Your task to perform on an android device: Search for pizza restaurants on Maps Image 0: 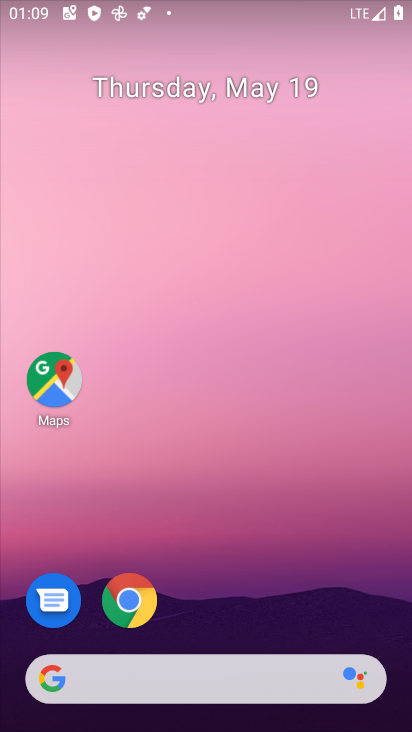
Step 0: click (49, 377)
Your task to perform on an android device: Search for pizza restaurants on Maps Image 1: 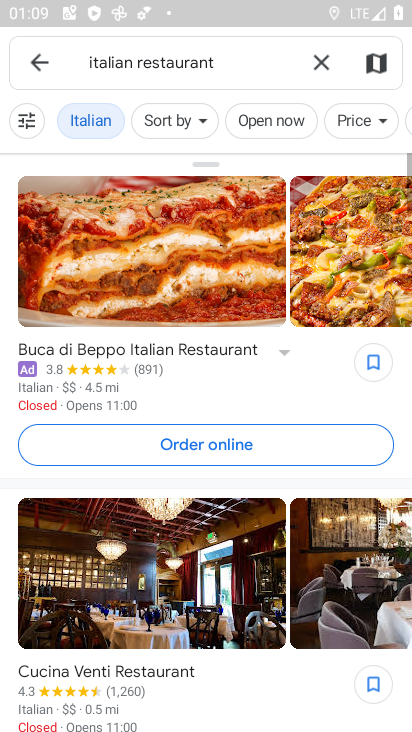
Step 1: click (322, 58)
Your task to perform on an android device: Search for pizza restaurants on Maps Image 2: 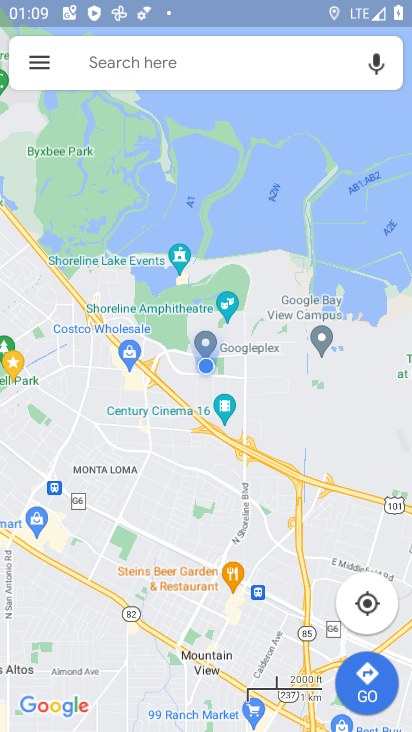
Step 2: click (172, 62)
Your task to perform on an android device: Search for pizza restaurants on Maps Image 3: 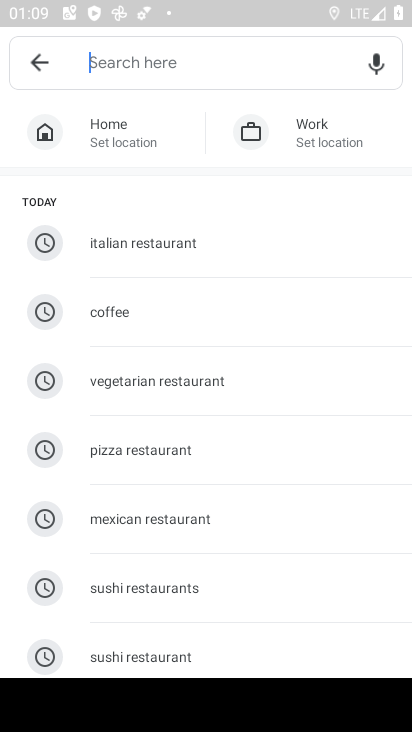
Step 3: click (148, 438)
Your task to perform on an android device: Search for pizza restaurants on Maps Image 4: 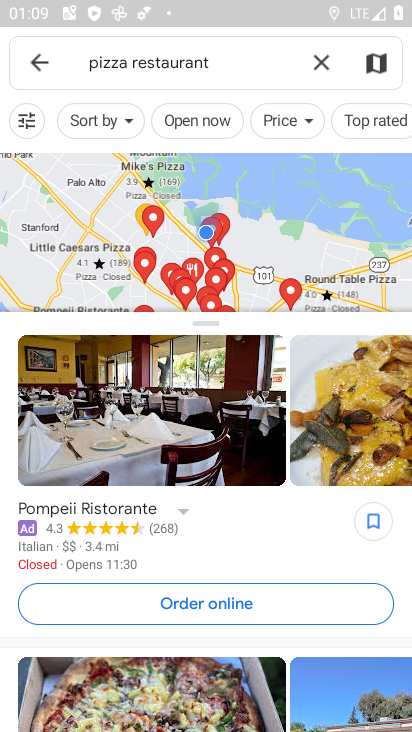
Step 4: task complete